Your task to perform on an android device: Open the calendar and show me this week's events? Image 0: 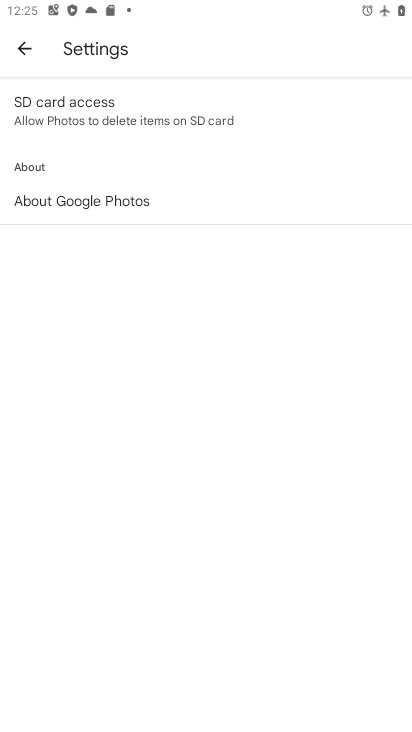
Step 0: press home button
Your task to perform on an android device: Open the calendar and show me this week's events? Image 1: 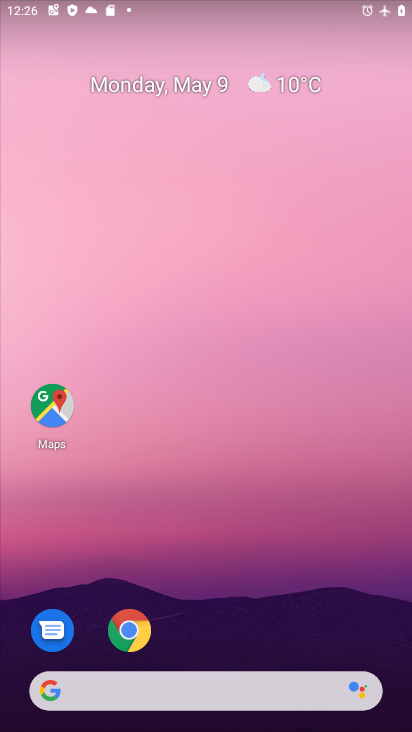
Step 1: drag from (355, 622) to (220, 87)
Your task to perform on an android device: Open the calendar and show me this week's events? Image 2: 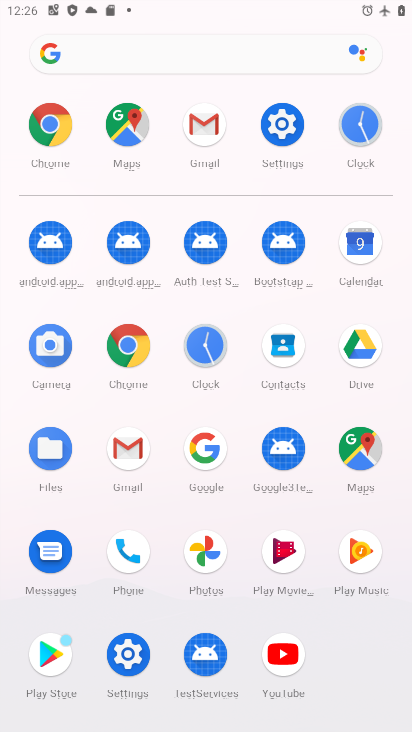
Step 2: click (357, 250)
Your task to perform on an android device: Open the calendar and show me this week's events? Image 3: 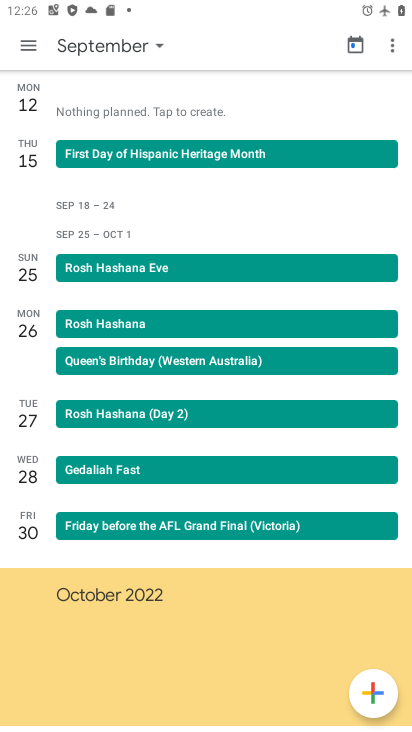
Step 3: click (23, 42)
Your task to perform on an android device: Open the calendar and show me this week's events? Image 4: 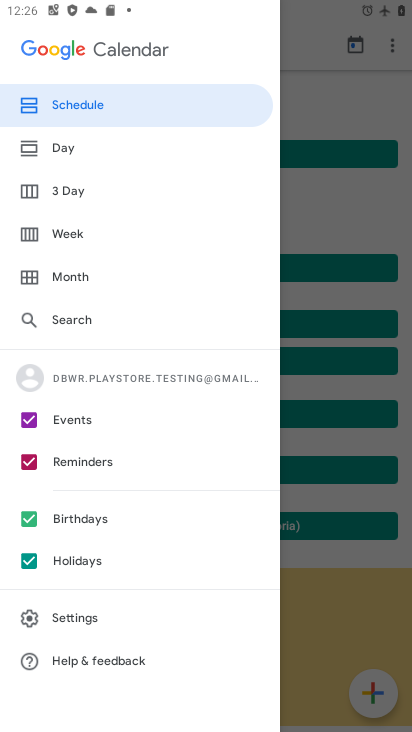
Step 4: click (77, 100)
Your task to perform on an android device: Open the calendar and show me this week's events? Image 5: 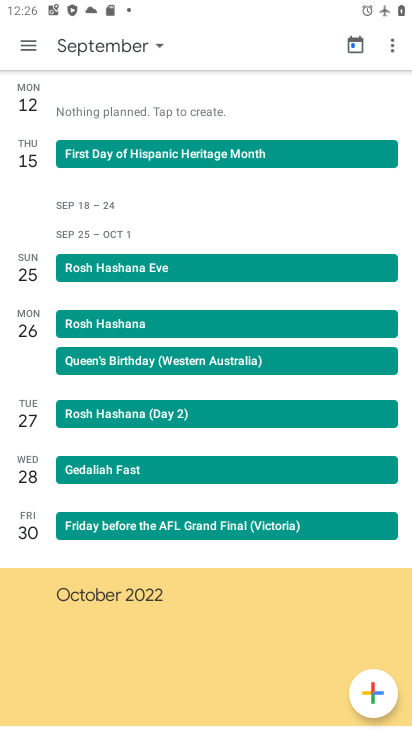
Step 5: task complete